Your task to perform on an android device: turn on airplane mode Image 0: 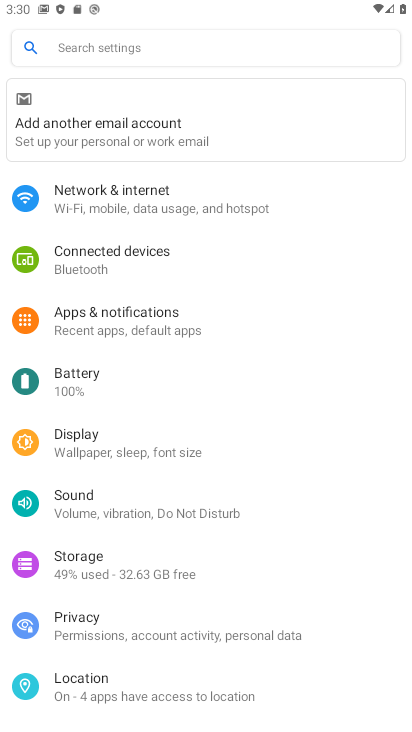
Step 0: click (99, 194)
Your task to perform on an android device: turn on airplane mode Image 1: 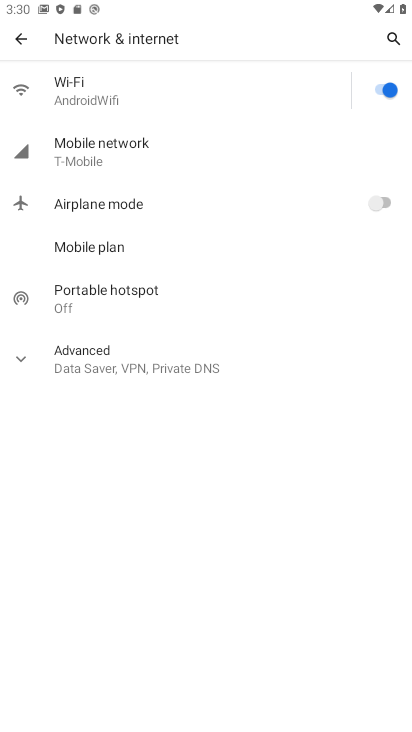
Step 1: click (385, 200)
Your task to perform on an android device: turn on airplane mode Image 2: 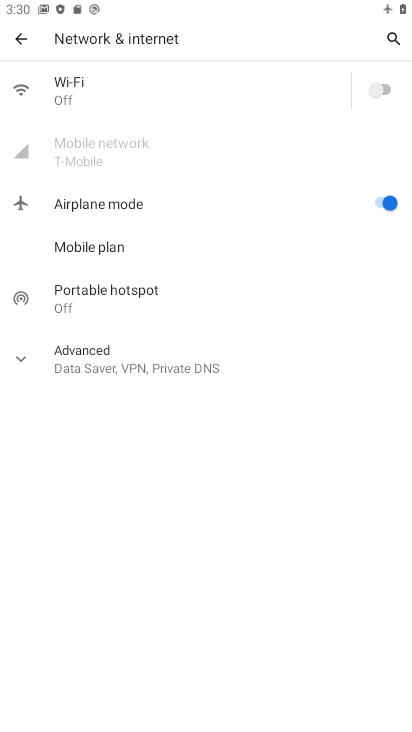
Step 2: task complete